Your task to perform on an android device: Set the phone to "Do not disturb". Image 0: 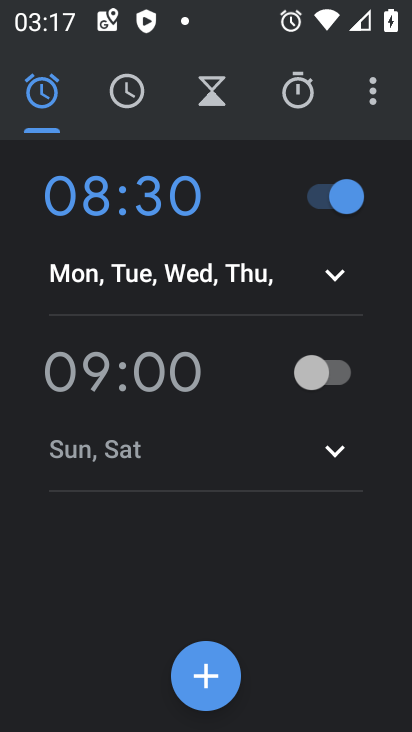
Step 0: press home button
Your task to perform on an android device: Set the phone to "Do not disturb". Image 1: 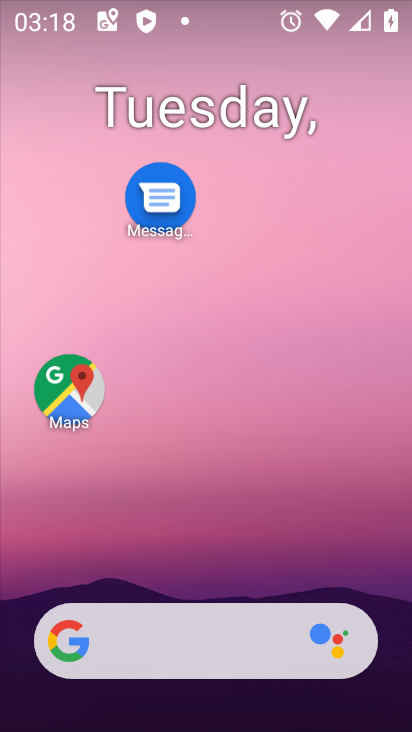
Step 1: drag from (216, 555) to (227, 141)
Your task to perform on an android device: Set the phone to "Do not disturb". Image 2: 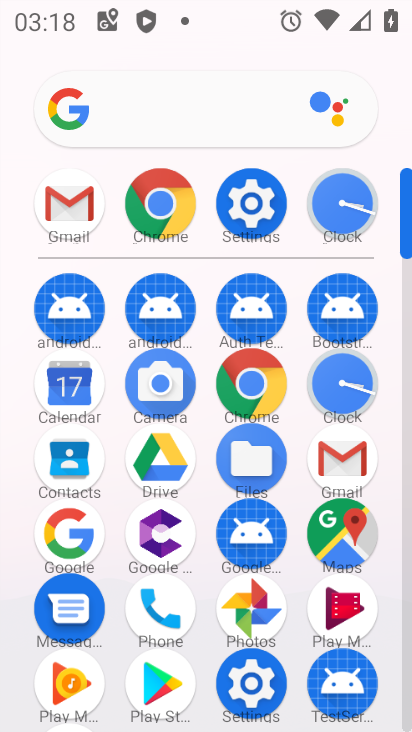
Step 2: click (237, 226)
Your task to perform on an android device: Set the phone to "Do not disturb". Image 3: 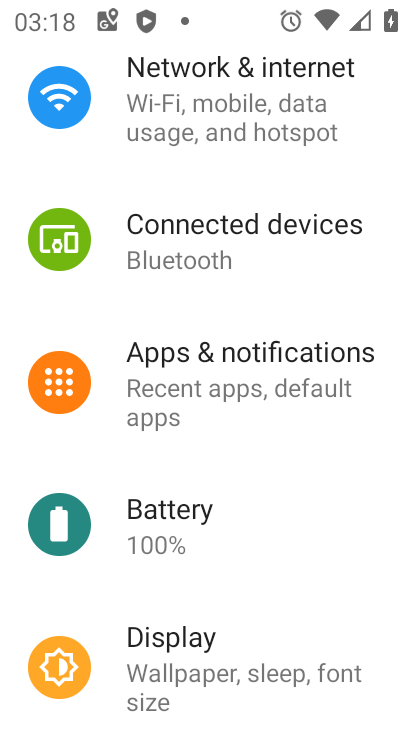
Step 3: drag from (224, 309) to (269, 208)
Your task to perform on an android device: Set the phone to "Do not disturb". Image 4: 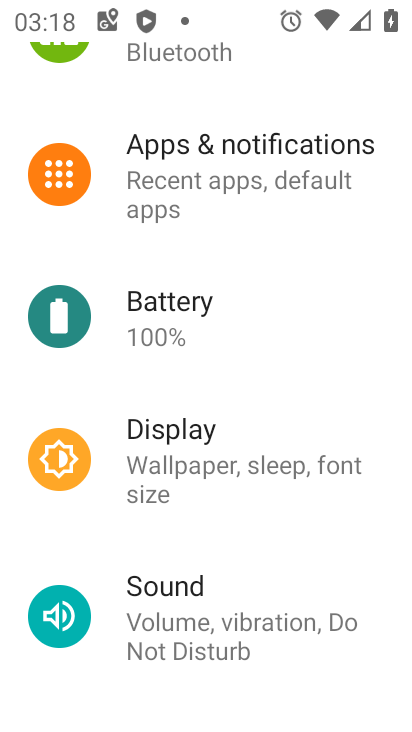
Step 4: click (195, 649)
Your task to perform on an android device: Set the phone to "Do not disturb". Image 5: 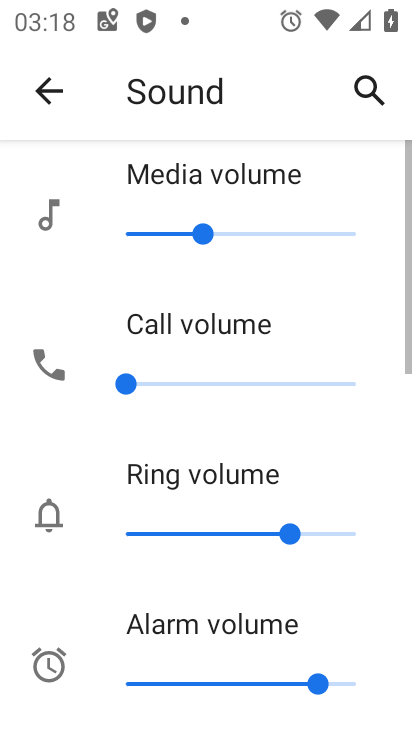
Step 5: drag from (196, 650) to (270, 275)
Your task to perform on an android device: Set the phone to "Do not disturb". Image 6: 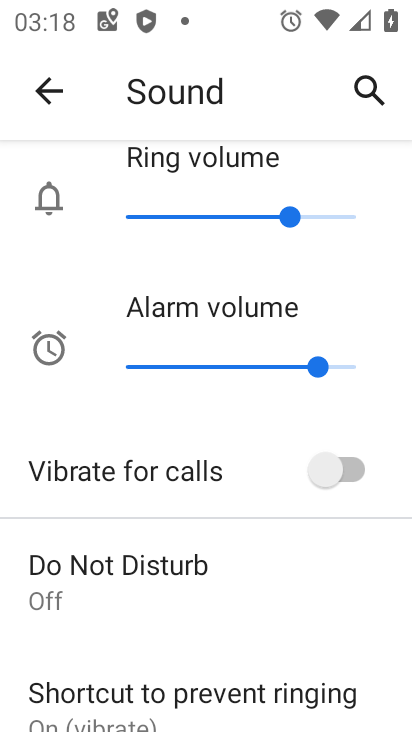
Step 6: click (207, 603)
Your task to perform on an android device: Set the phone to "Do not disturb". Image 7: 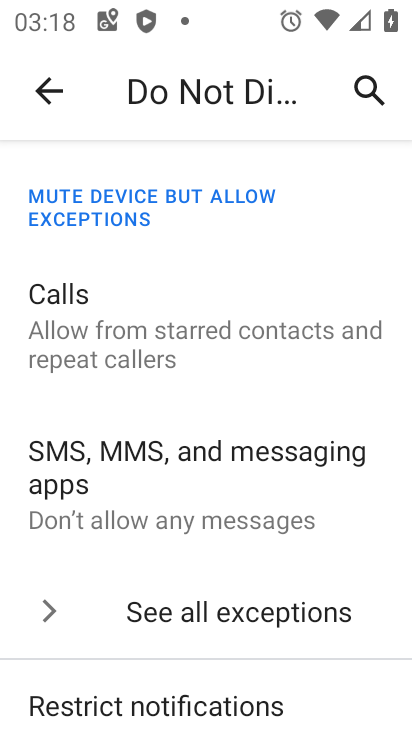
Step 7: drag from (205, 609) to (282, 335)
Your task to perform on an android device: Set the phone to "Do not disturb". Image 8: 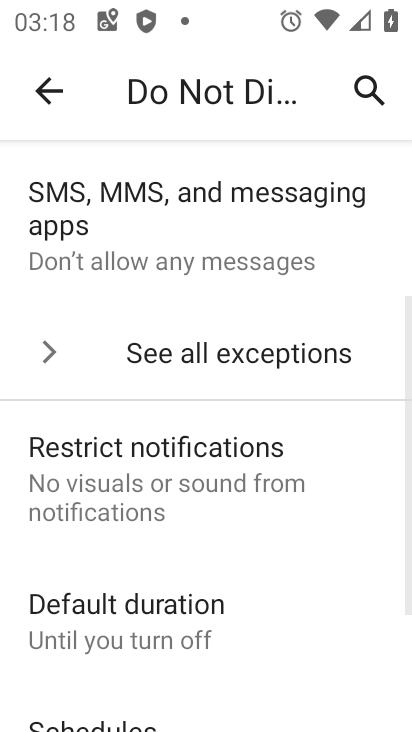
Step 8: drag from (247, 620) to (287, 409)
Your task to perform on an android device: Set the phone to "Do not disturb". Image 9: 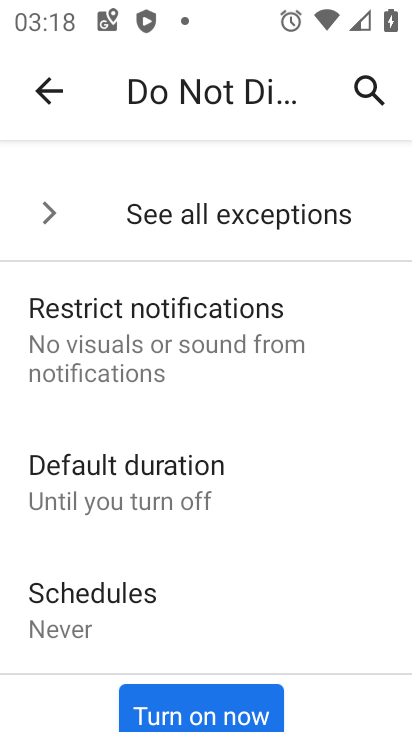
Step 9: click (203, 711)
Your task to perform on an android device: Set the phone to "Do not disturb". Image 10: 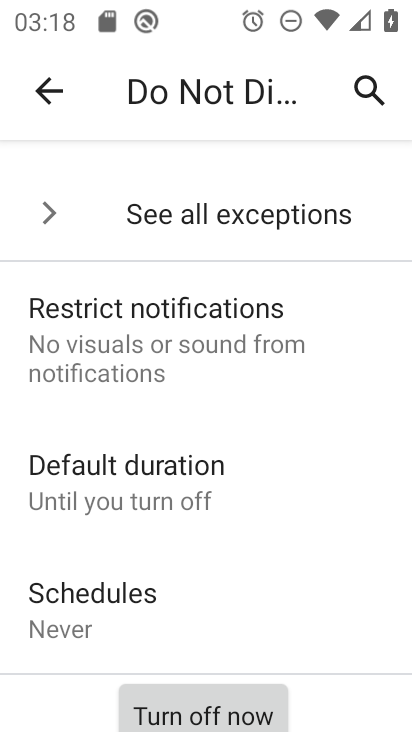
Step 10: task complete